Your task to perform on an android device: snooze an email in the gmail app Image 0: 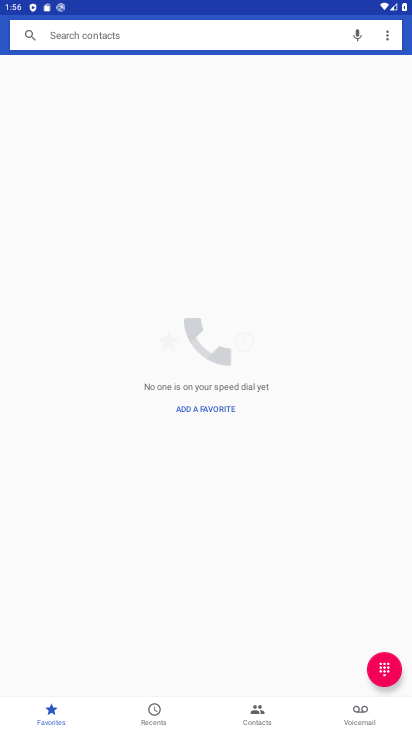
Step 0: press home button
Your task to perform on an android device: snooze an email in the gmail app Image 1: 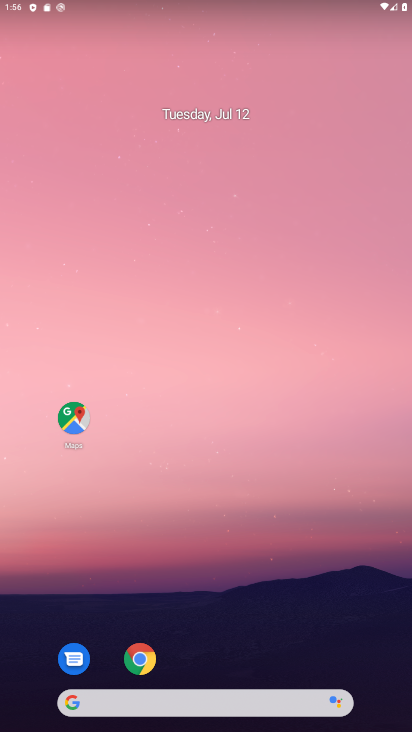
Step 1: drag from (288, 686) to (380, 77)
Your task to perform on an android device: snooze an email in the gmail app Image 2: 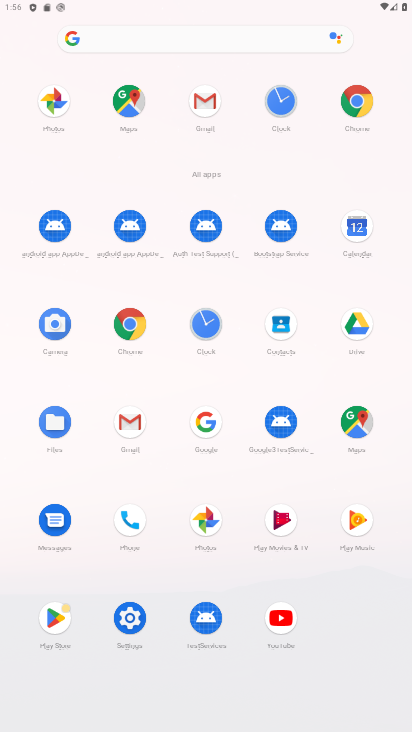
Step 2: click (127, 426)
Your task to perform on an android device: snooze an email in the gmail app Image 3: 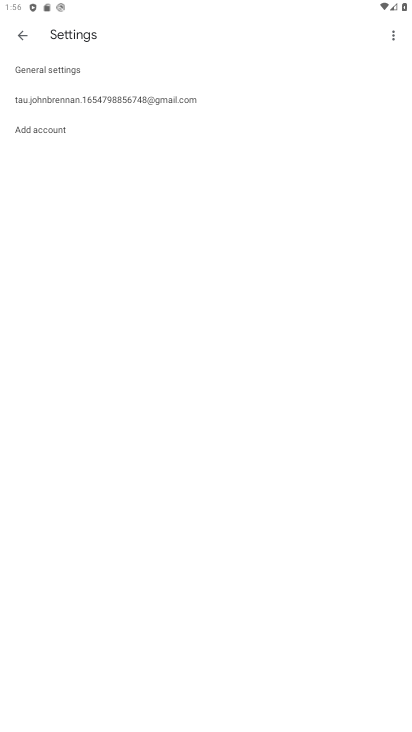
Step 3: task complete